Your task to perform on an android device: Show me recent news Image 0: 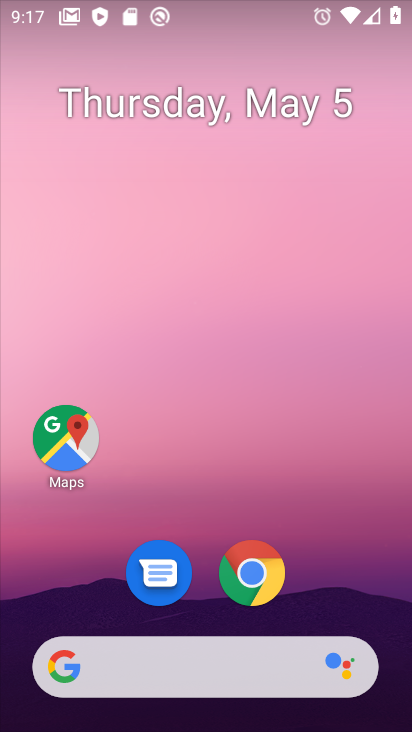
Step 0: click (185, 667)
Your task to perform on an android device: Show me recent news Image 1: 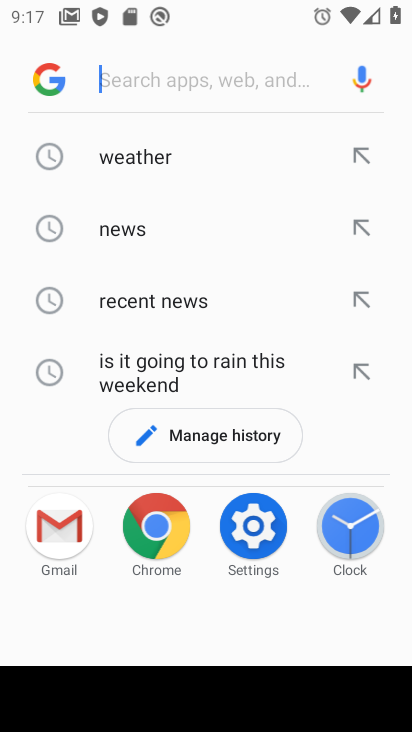
Step 1: click (116, 298)
Your task to perform on an android device: Show me recent news Image 2: 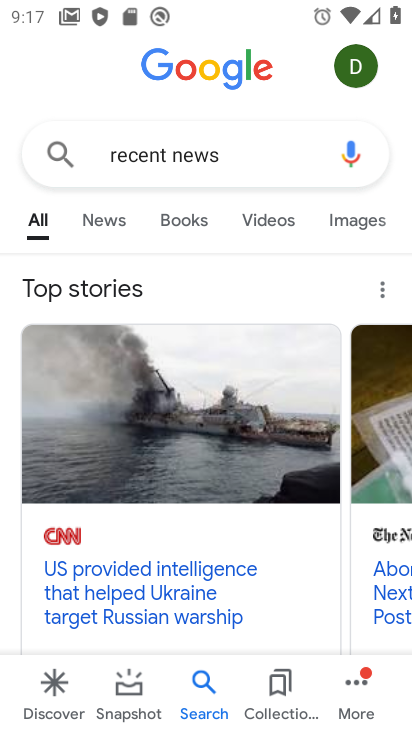
Step 2: task complete